Your task to perform on an android device: Go to Wikipedia Image 0: 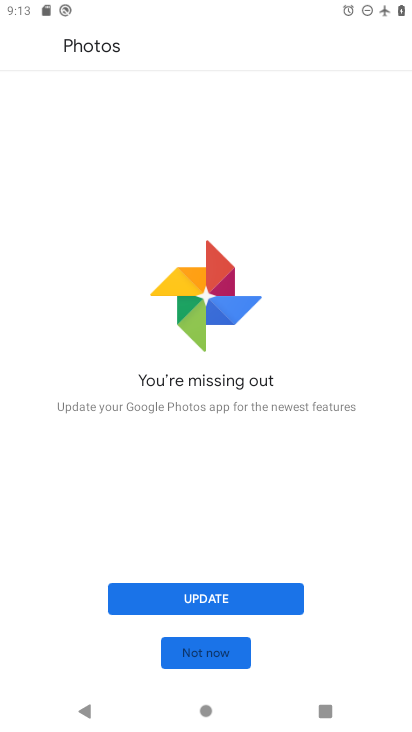
Step 0: press home button
Your task to perform on an android device: Go to Wikipedia Image 1: 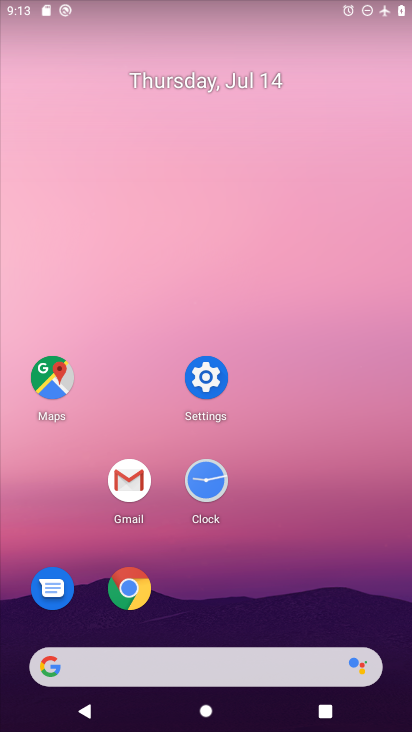
Step 1: click (132, 586)
Your task to perform on an android device: Go to Wikipedia Image 2: 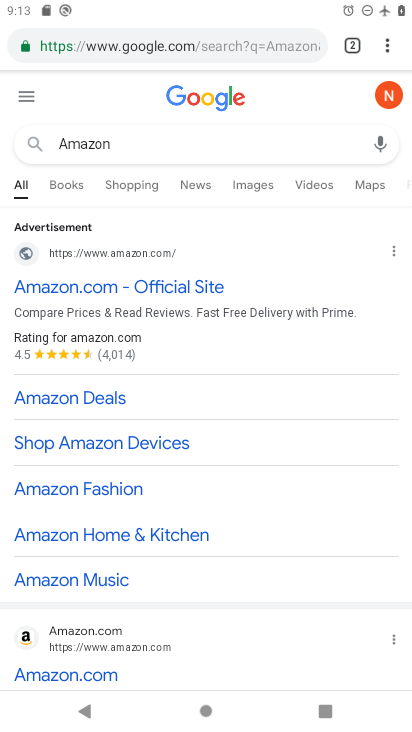
Step 2: click (303, 40)
Your task to perform on an android device: Go to Wikipedia Image 3: 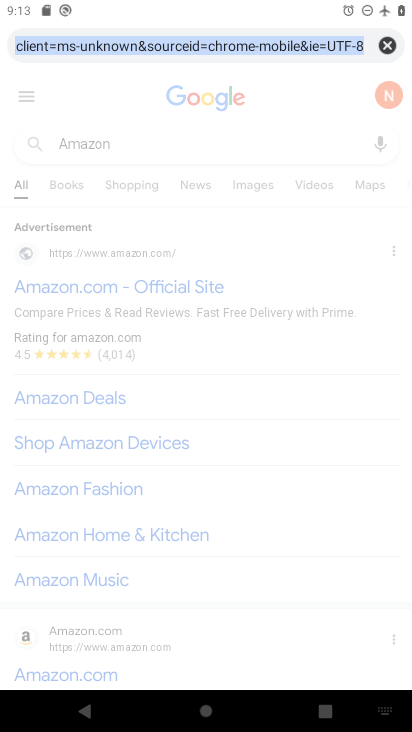
Step 3: click (381, 42)
Your task to perform on an android device: Go to Wikipedia Image 4: 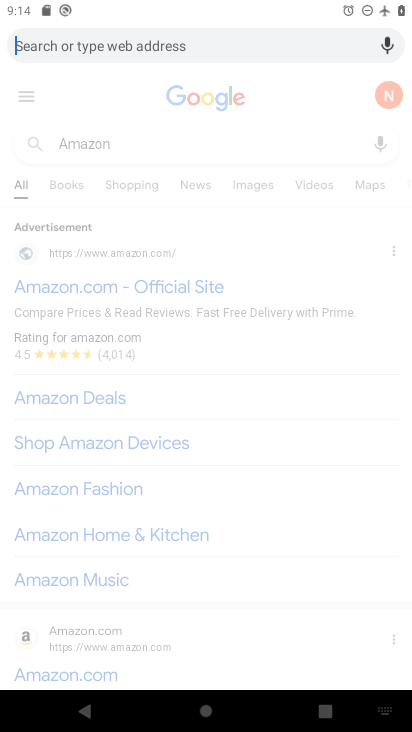
Step 4: type "Wikipedia"
Your task to perform on an android device: Go to Wikipedia Image 5: 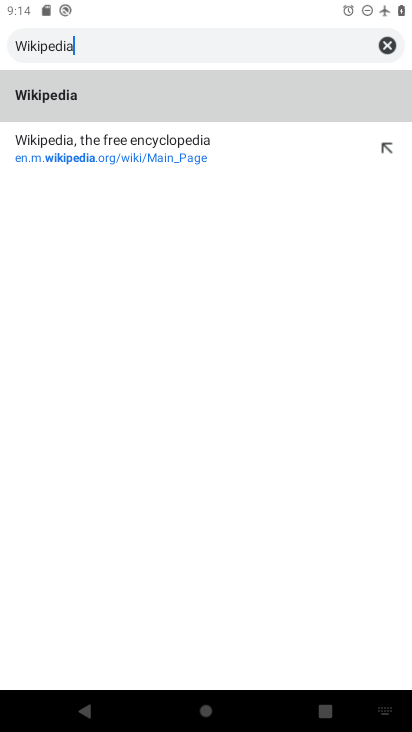
Step 5: click (94, 106)
Your task to perform on an android device: Go to Wikipedia Image 6: 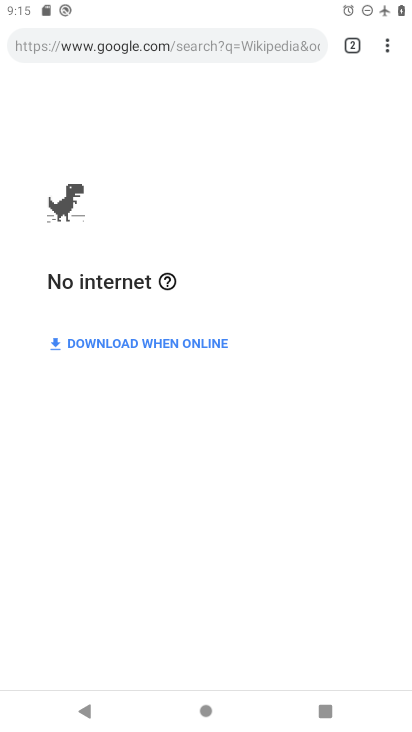
Step 6: task complete